Your task to perform on an android device: turn on priority inbox in the gmail app Image 0: 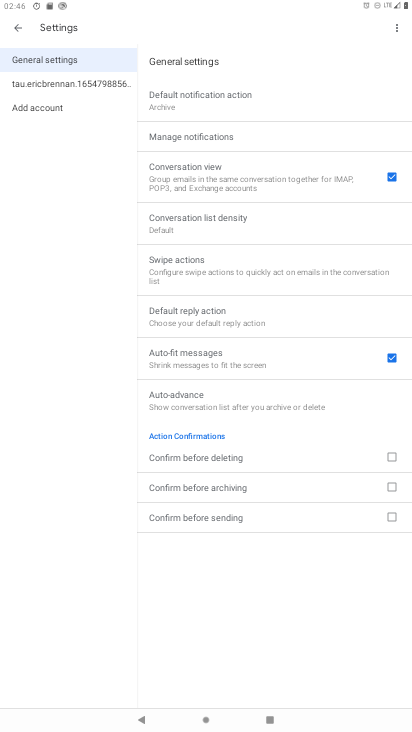
Step 0: click (39, 86)
Your task to perform on an android device: turn on priority inbox in the gmail app Image 1: 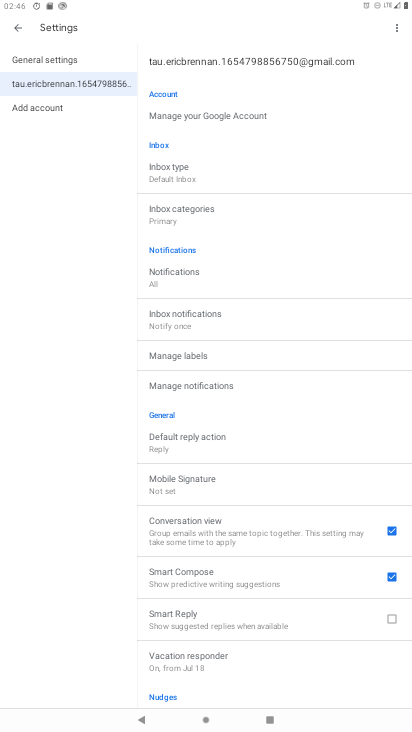
Step 1: click (178, 170)
Your task to perform on an android device: turn on priority inbox in the gmail app Image 2: 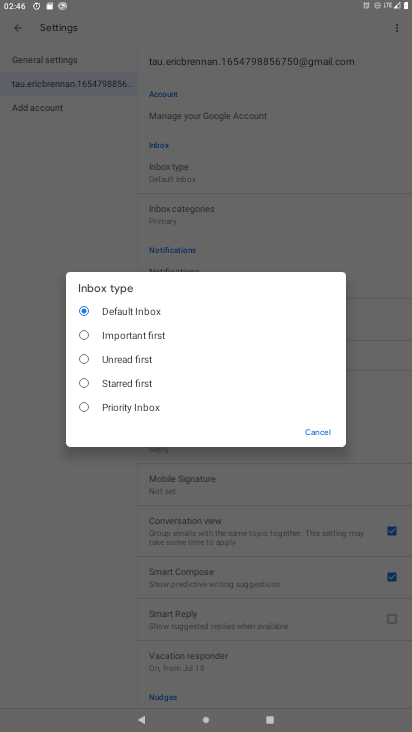
Step 2: click (97, 411)
Your task to perform on an android device: turn on priority inbox in the gmail app Image 3: 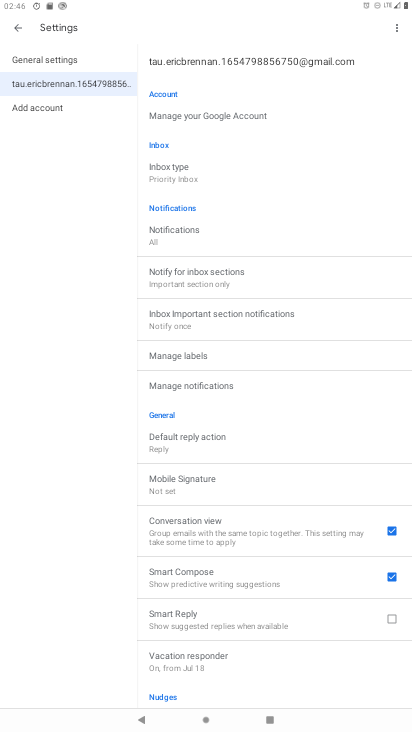
Step 3: task complete